Your task to perform on an android device: turn smart compose on in the gmail app Image 0: 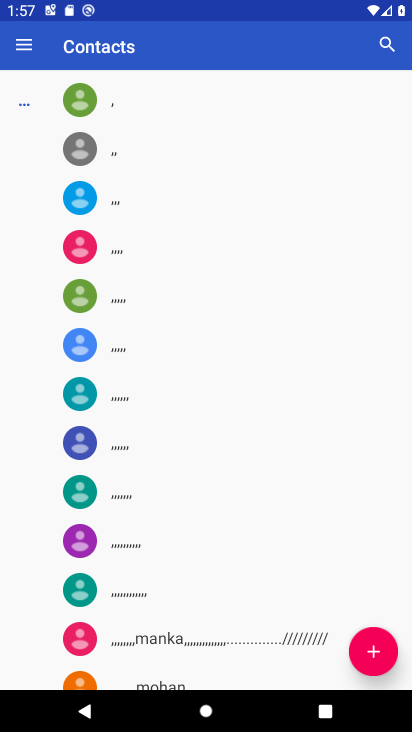
Step 0: press home button
Your task to perform on an android device: turn smart compose on in the gmail app Image 1: 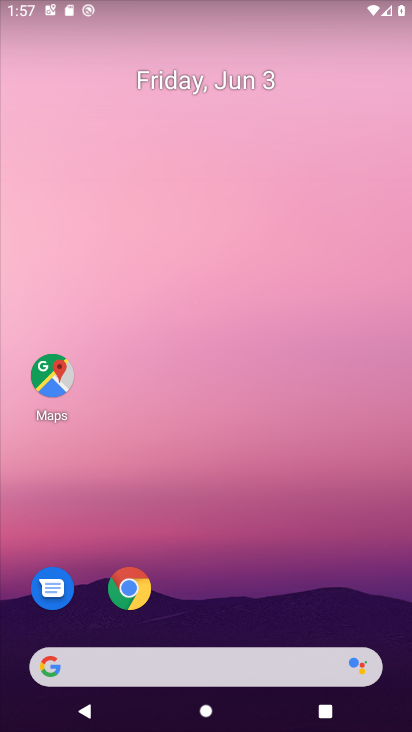
Step 1: drag from (185, 611) to (180, 104)
Your task to perform on an android device: turn smart compose on in the gmail app Image 2: 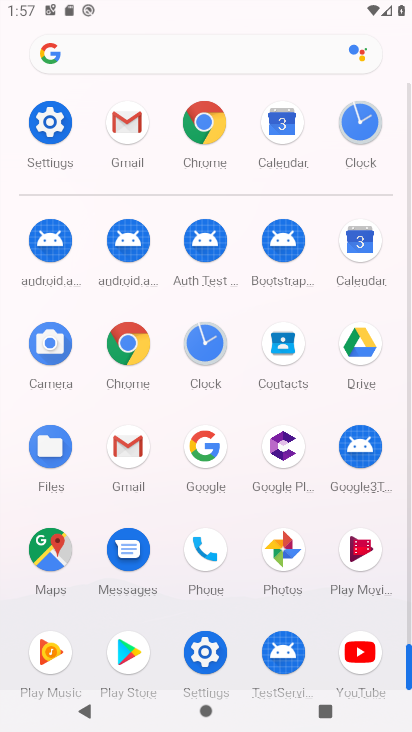
Step 2: click (128, 454)
Your task to perform on an android device: turn smart compose on in the gmail app Image 3: 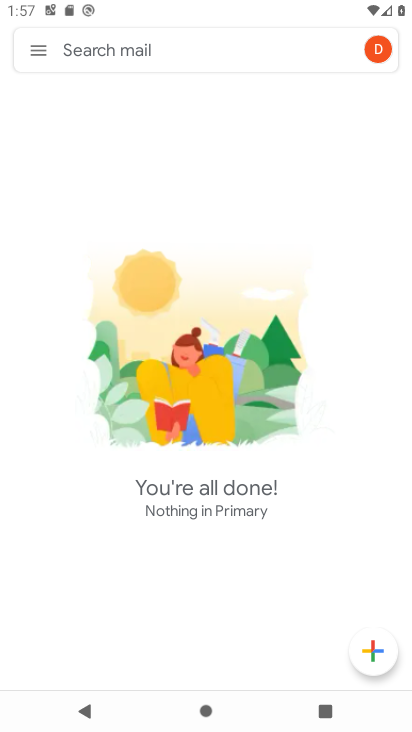
Step 3: click (38, 57)
Your task to perform on an android device: turn smart compose on in the gmail app Image 4: 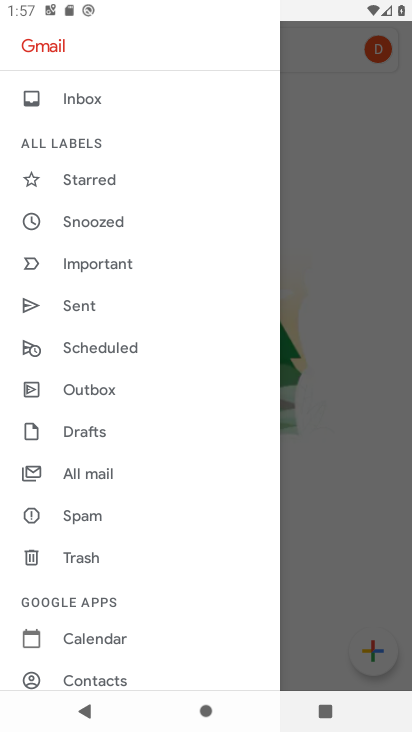
Step 4: click (113, 306)
Your task to perform on an android device: turn smart compose on in the gmail app Image 5: 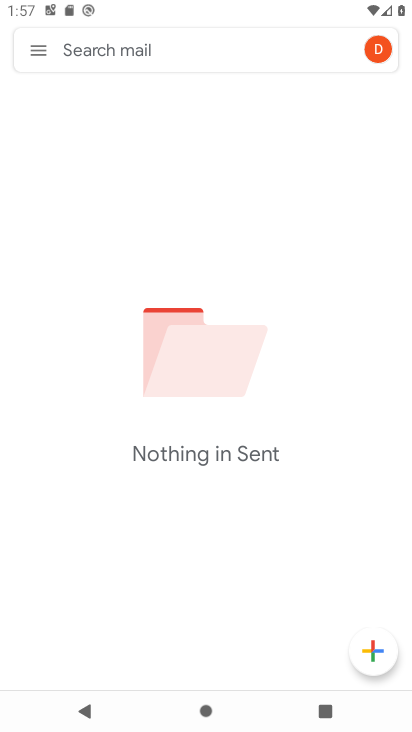
Step 5: click (34, 61)
Your task to perform on an android device: turn smart compose on in the gmail app Image 6: 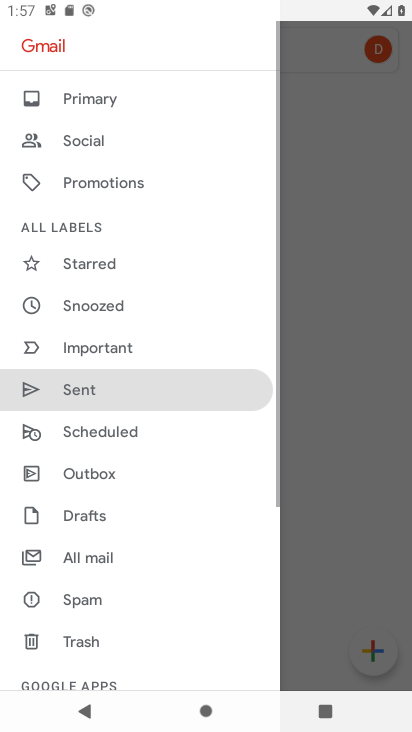
Step 6: drag from (97, 619) to (209, 160)
Your task to perform on an android device: turn smart compose on in the gmail app Image 7: 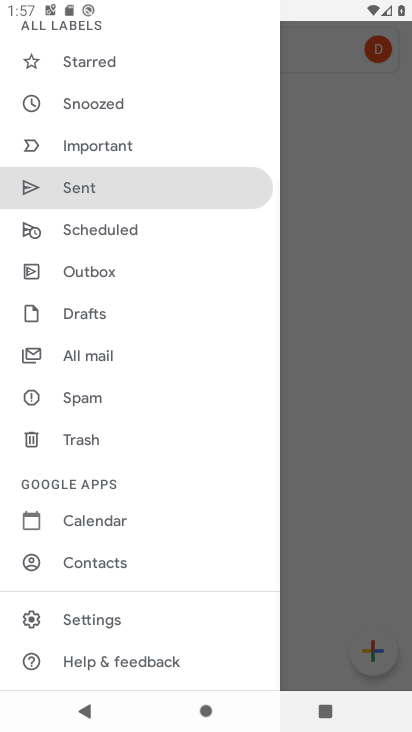
Step 7: click (91, 612)
Your task to perform on an android device: turn smart compose on in the gmail app Image 8: 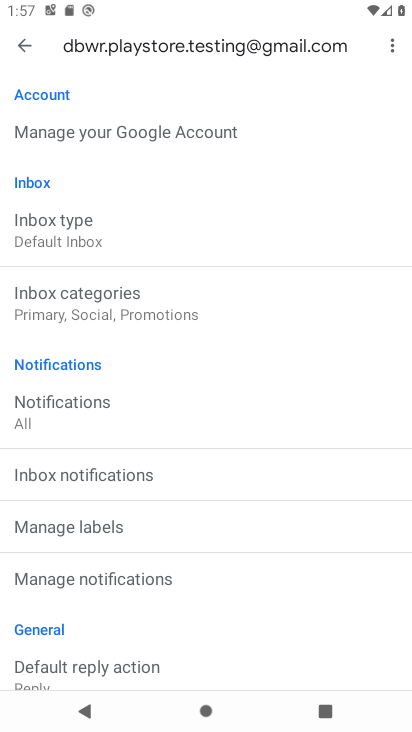
Step 8: task complete